Your task to perform on an android device: star an email in the gmail app Image 0: 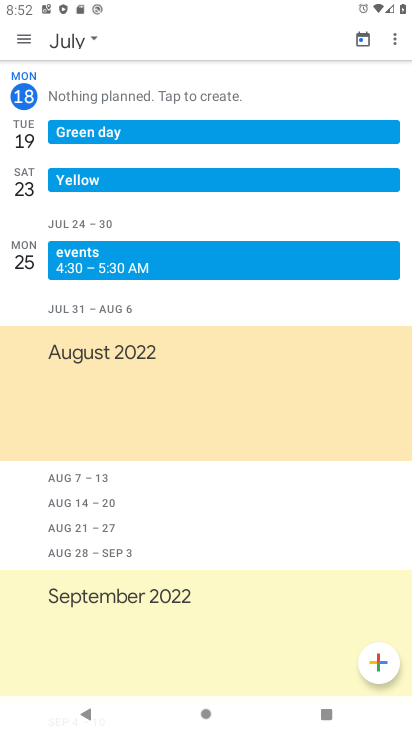
Step 0: press home button
Your task to perform on an android device: star an email in the gmail app Image 1: 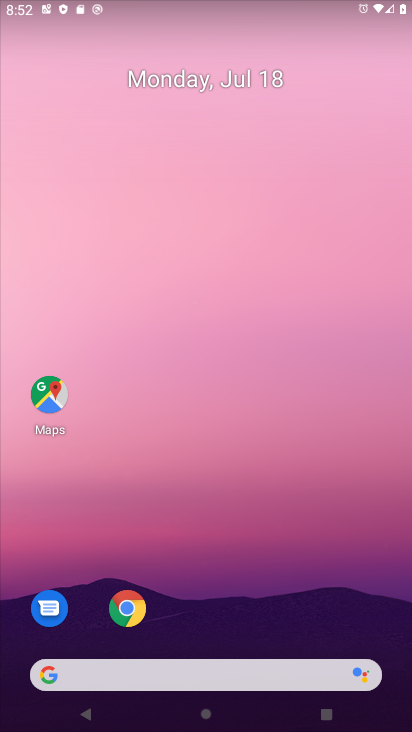
Step 1: drag from (230, 718) to (230, 63)
Your task to perform on an android device: star an email in the gmail app Image 2: 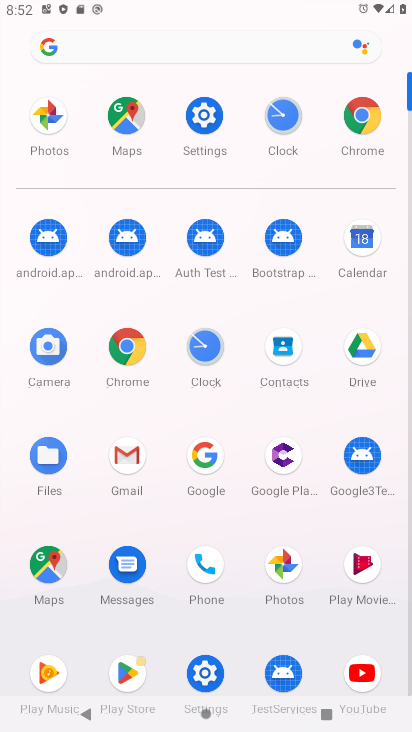
Step 2: click (130, 453)
Your task to perform on an android device: star an email in the gmail app Image 3: 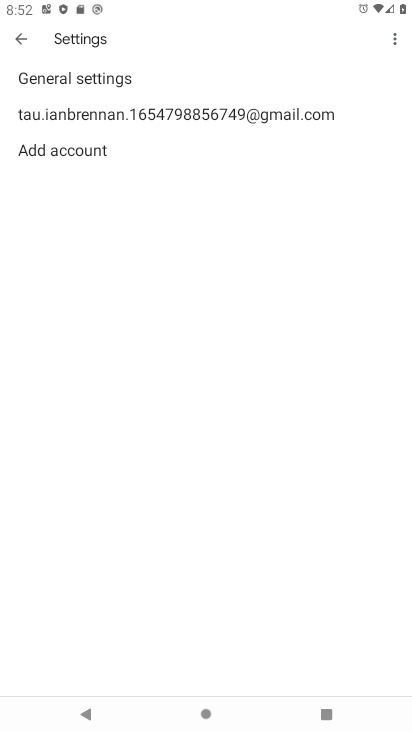
Step 3: click (26, 35)
Your task to perform on an android device: star an email in the gmail app Image 4: 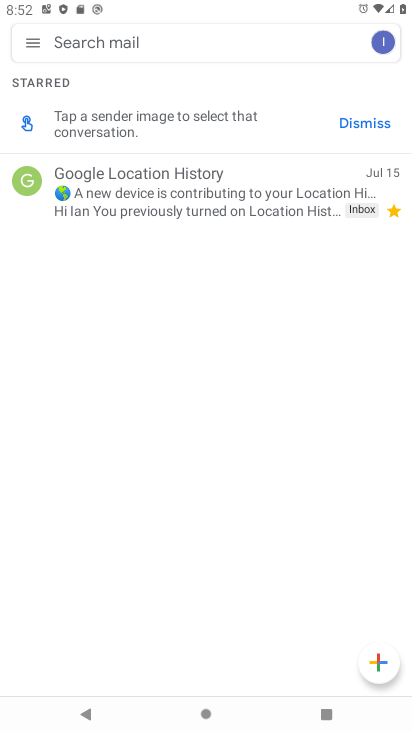
Step 4: task complete